Your task to perform on an android device: move a message to another label in the gmail app Image 0: 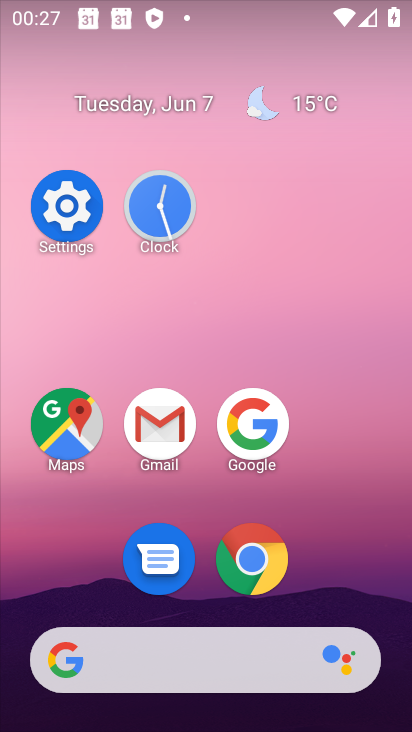
Step 0: click (149, 420)
Your task to perform on an android device: move a message to another label in the gmail app Image 1: 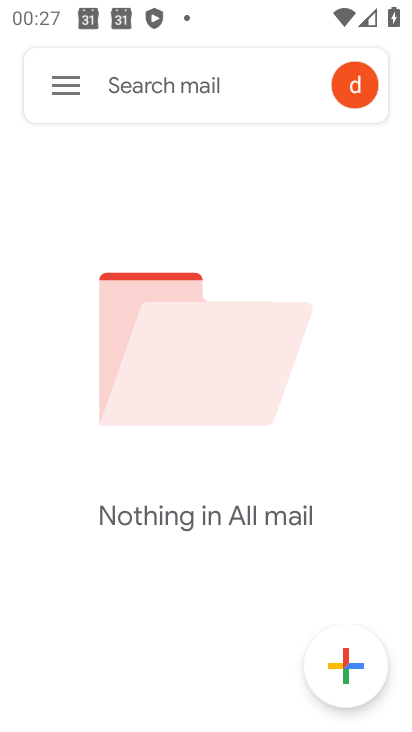
Step 1: click (54, 113)
Your task to perform on an android device: move a message to another label in the gmail app Image 2: 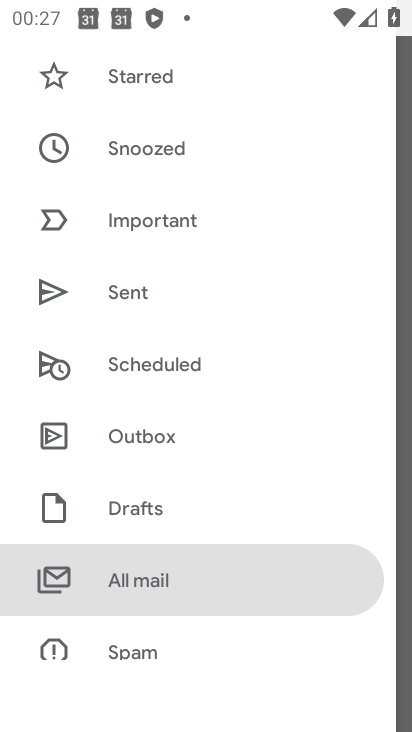
Step 2: click (183, 586)
Your task to perform on an android device: move a message to another label in the gmail app Image 3: 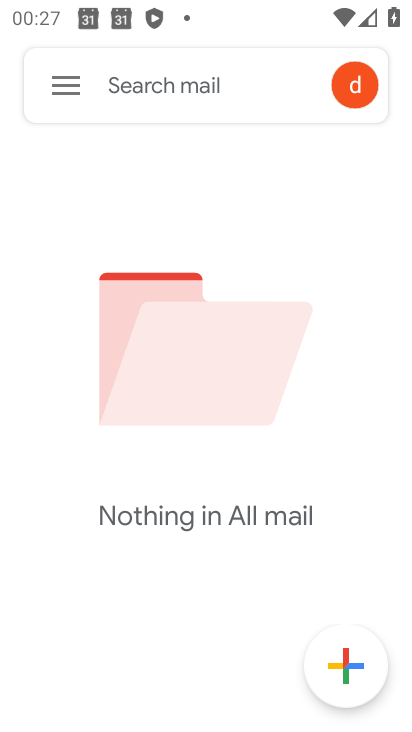
Step 3: task complete